Your task to perform on an android device: Show me recent news Image 0: 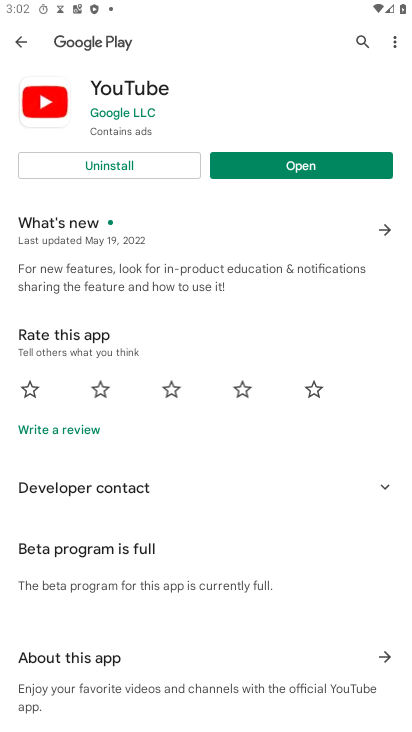
Step 0: press home button
Your task to perform on an android device: Show me recent news Image 1: 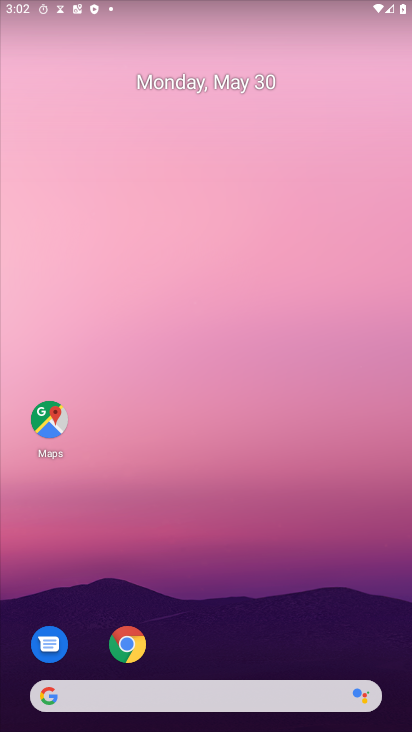
Step 1: click (42, 699)
Your task to perform on an android device: Show me recent news Image 2: 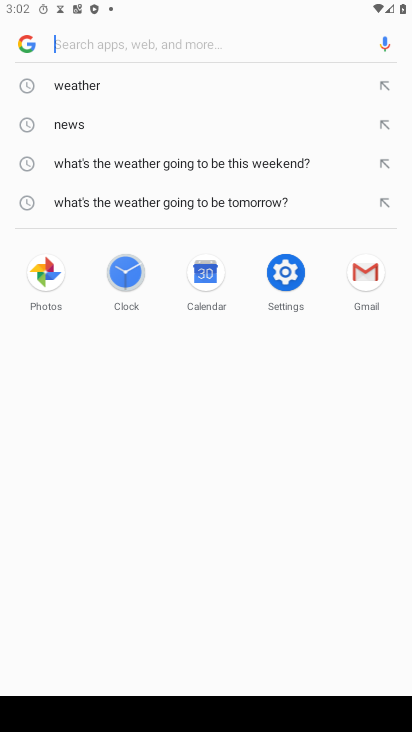
Step 2: click (140, 43)
Your task to perform on an android device: Show me recent news Image 3: 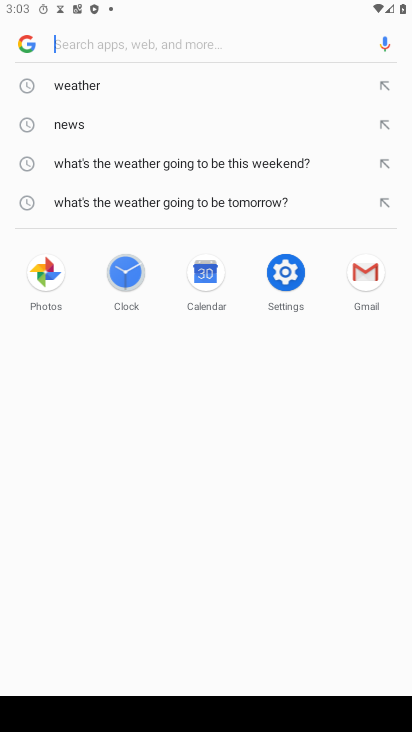
Step 3: type "recent news"
Your task to perform on an android device: Show me recent news Image 4: 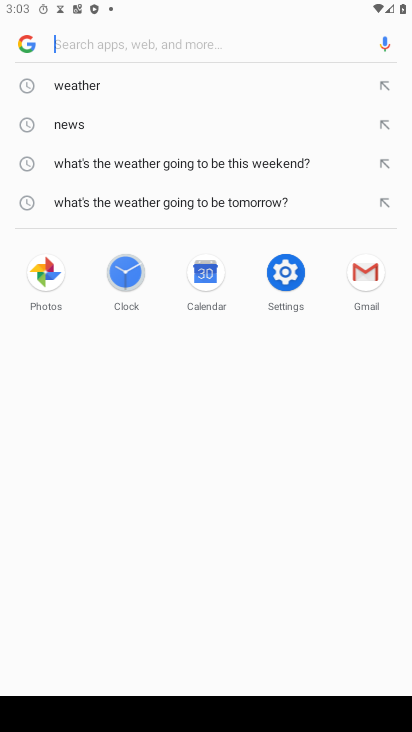
Step 4: click (186, 41)
Your task to perform on an android device: Show me recent news Image 5: 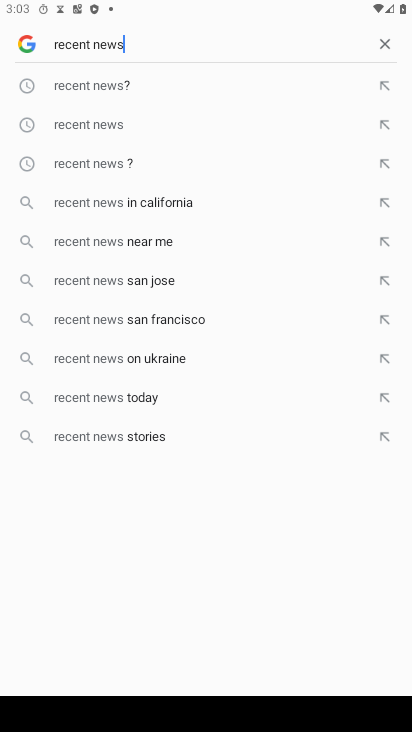
Step 5: click (134, 39)
Your task to perform on an android device: Show me recent news Image 6: 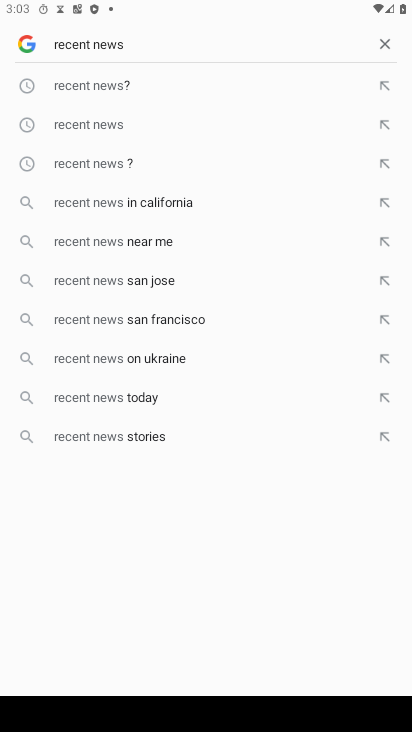
Step 6: click (99, 127)
Your task to perform on an android device: Show me recent news Image 7: 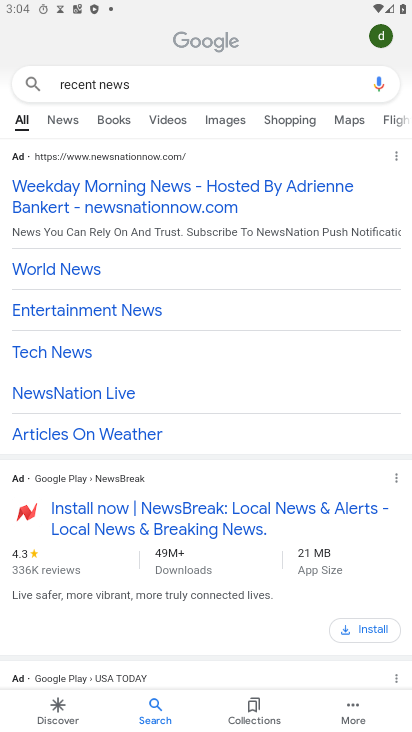
Step 7: task complete